Your task to perform on an android device: Open Chrome and go to settings Image 0: 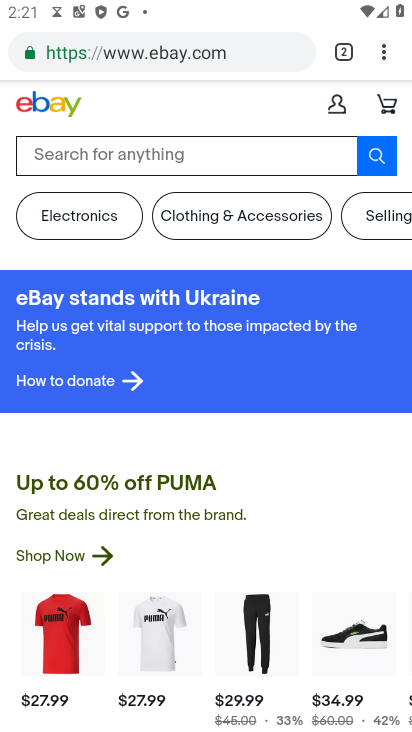
Step 0: drag from (378, 52) to (192, 605)
Your task to perform on an android device: Open Chrome and go to settings Image 1: 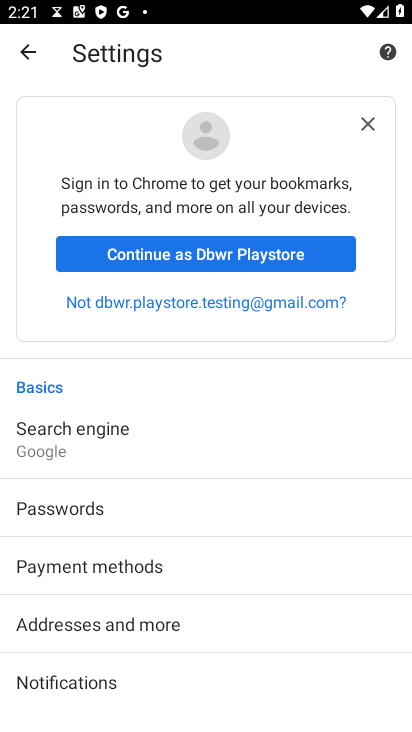
Step 1: task complete